Your task to perform on an android device: Go to settings Image 0: 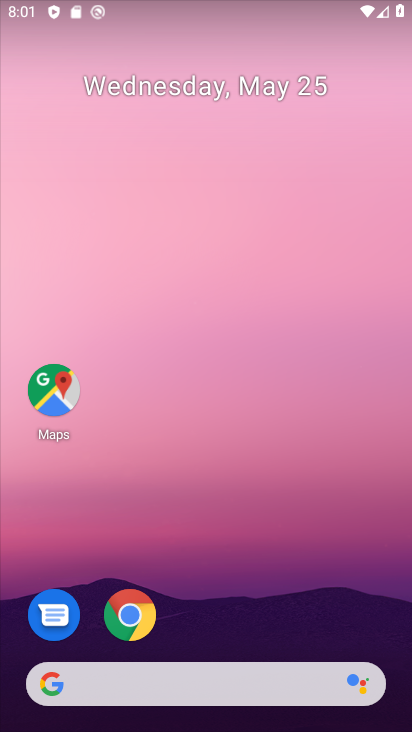
Step 0: drag from (287, 727) to (273, 1)
Your task to perform on an android device: Go to settings Image 1: 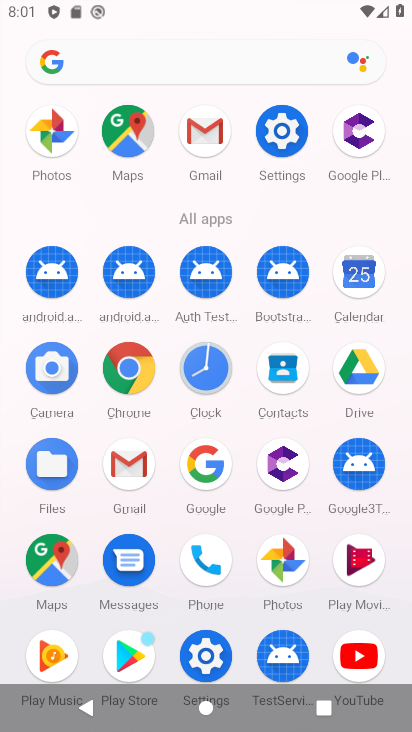
Step 1: click (285, 129)
Your task to perform on an android device: Go to settings Image 2: 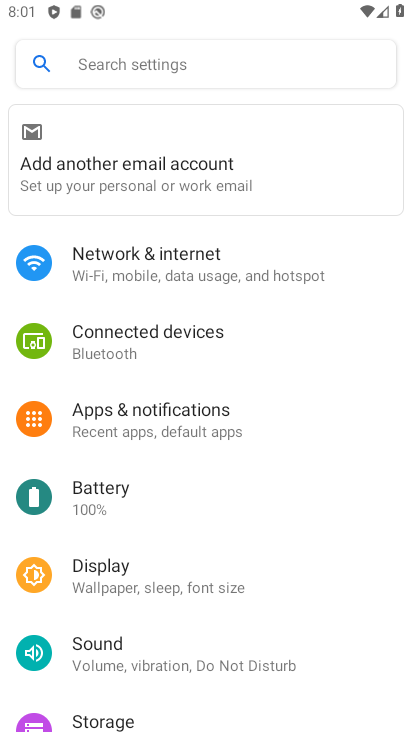
Step 2: task complete